Your task to perform on an android device: Go to location settings Image 0: 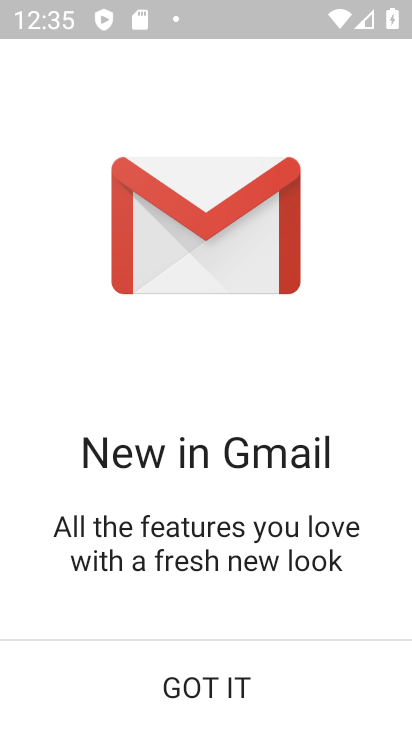
Step 0: press home button
Your task to perform on an android device: Go to location settings Image 1: 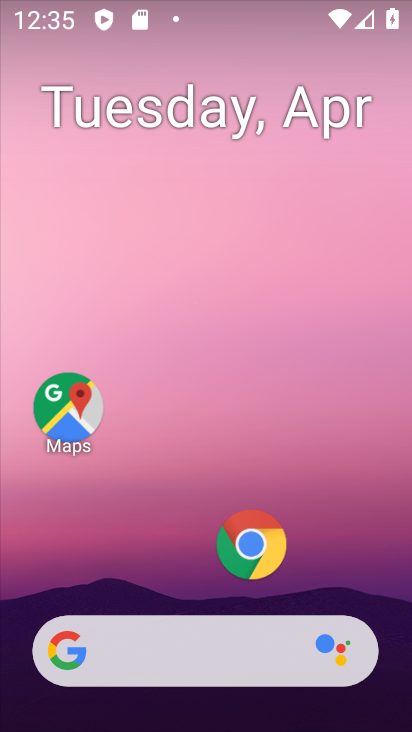
Step 1: drag from (206, 517) to (289, 170)
Your task to perform on an android device: Go to location settings Image 2: 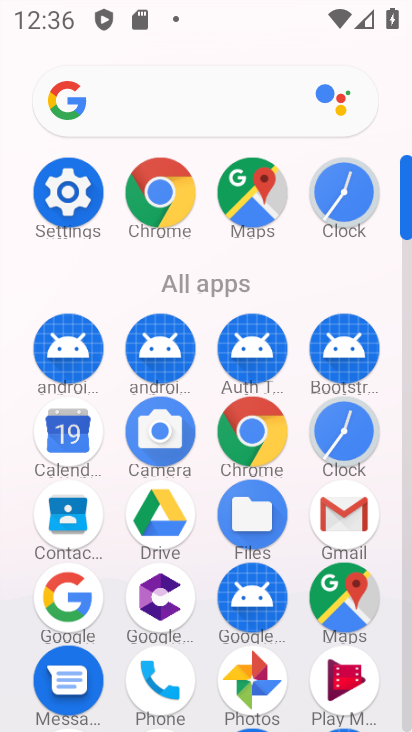
Step 2: click (68, 192)
Your task to perform on an android device: Go to location settings Image 3: 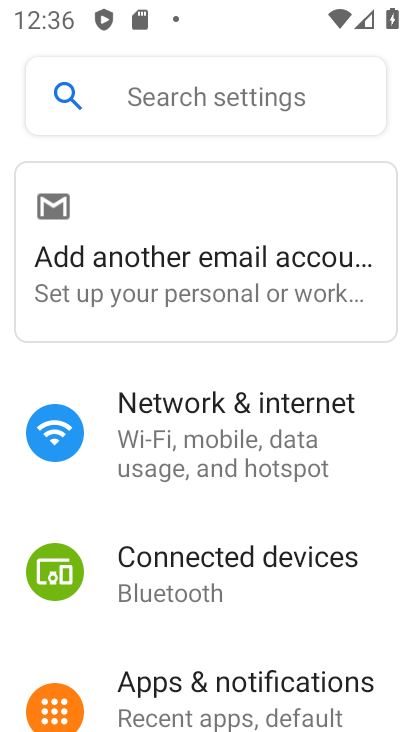
Step 3: drag from (271, 655) to (311, 91)
Your task to perform on an android device: Go to location settings Image 4: 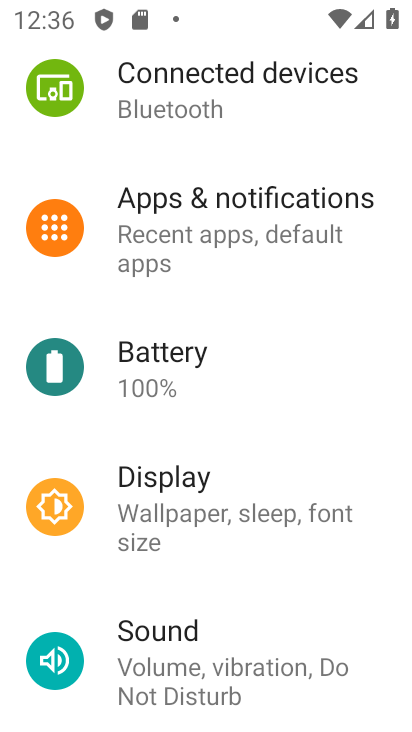
Step 4: drag from (202, 638) to (289, 142)
Your task to perform on an android device: Go to location settings Image 5: 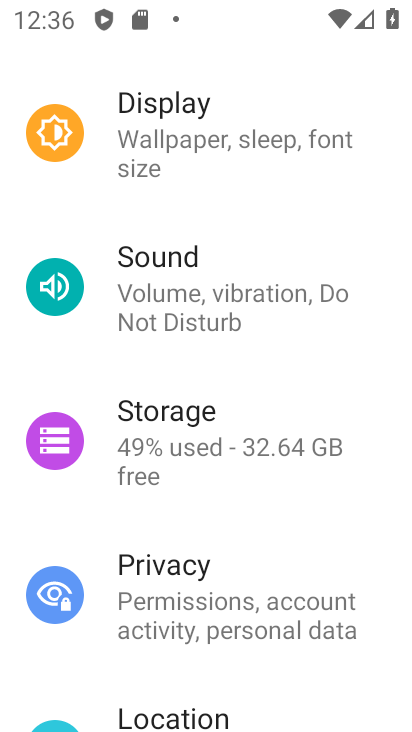
Step 5: drag from (267, 587) to (279, 311)
Your task to perform on an android device: Go to location settings Image 6: 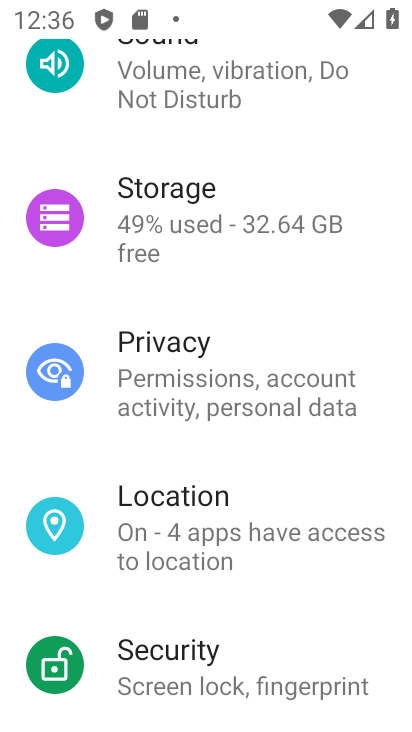
Step 6: click (183, 514)
Your task to perform on an android device: Go to location settings Image 7: 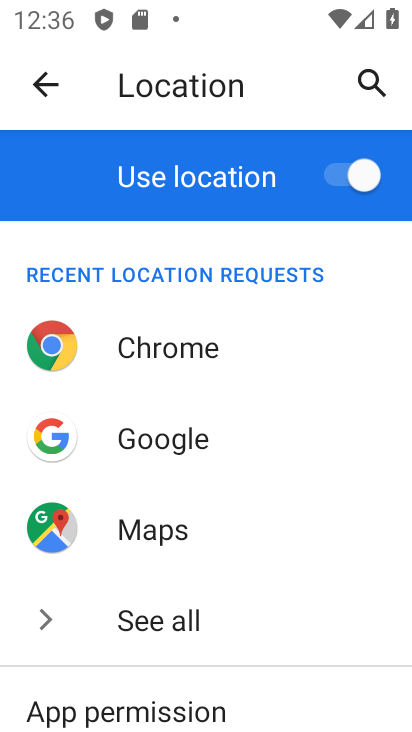
Step 7: task complete